Your task to perform on an android device: What's the weather going to be this weekend? Image 0: 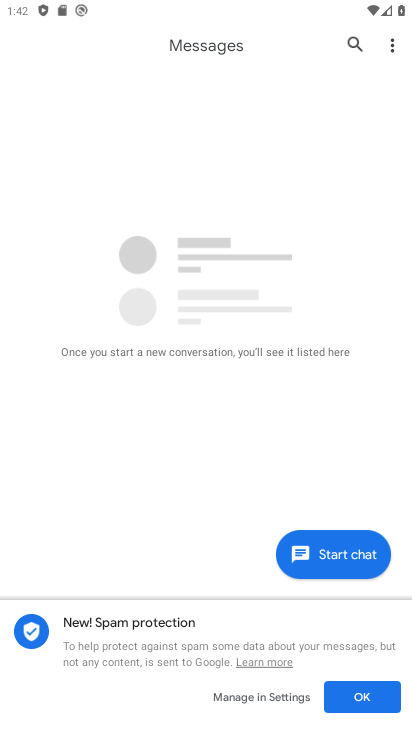
Step 0: press home button
Your task to perform on an android device: What's the weather going to be this weekend? Image 1: 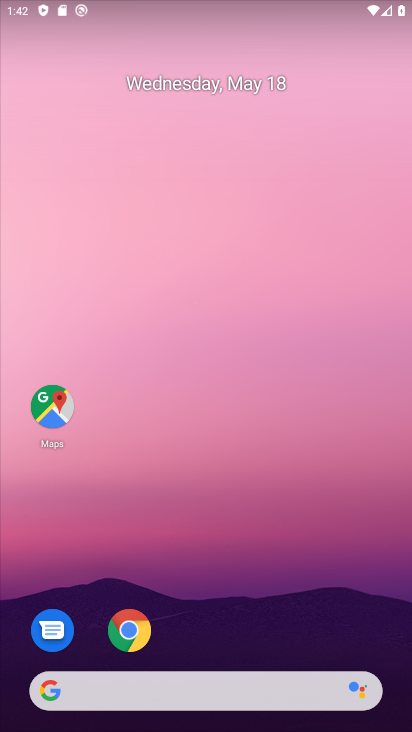
Step 1: click (148, 624)
Your task to perform on an android device: What's the weather going to be this weekend? Image 2: 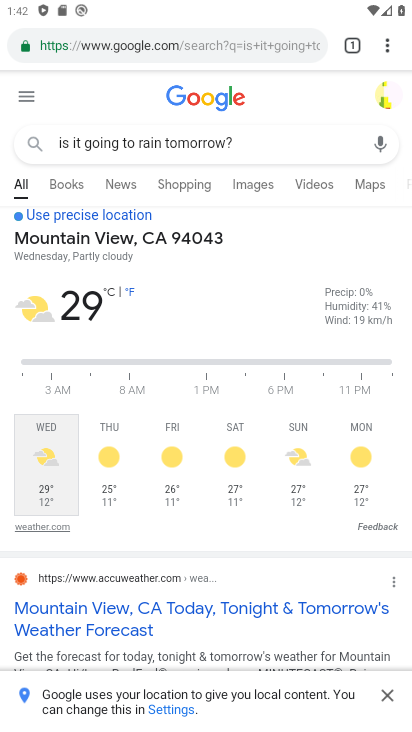
Step 2: click (284, 146)
Your task to perform on an android device: What's the weather going to be this weekend? Image 3: 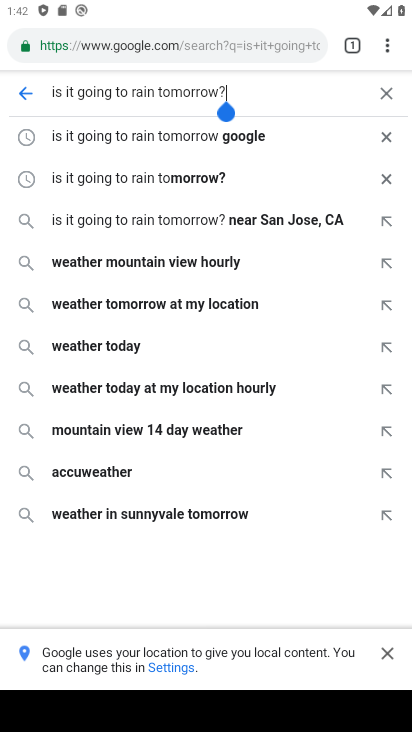
Step 3: click (383, 80)
Your task to perform on an android device: What's the weather going to be this weekend? Image 4: 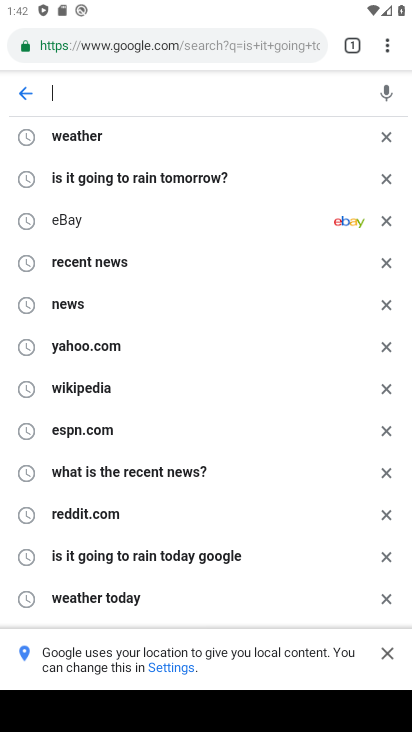
Step 4: click (184, 97)
Your task to perform on an android device: What's the weather going to be this weekend? Image 5: 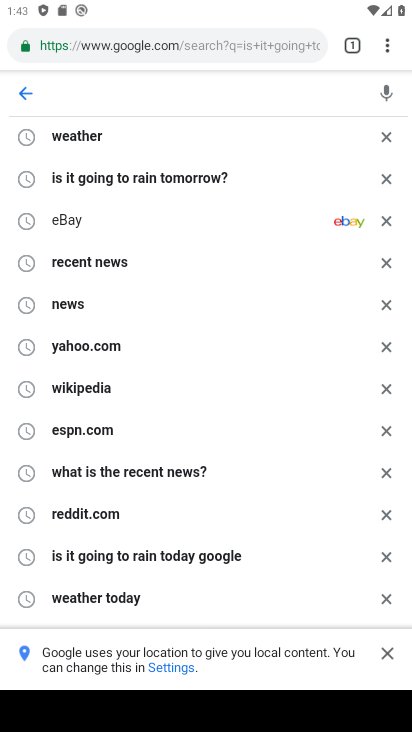
Step 5: type "what's the weather going to be this weekend?"
Your task to perform on an android device: What's the weather going to be this weekend? Image 6: 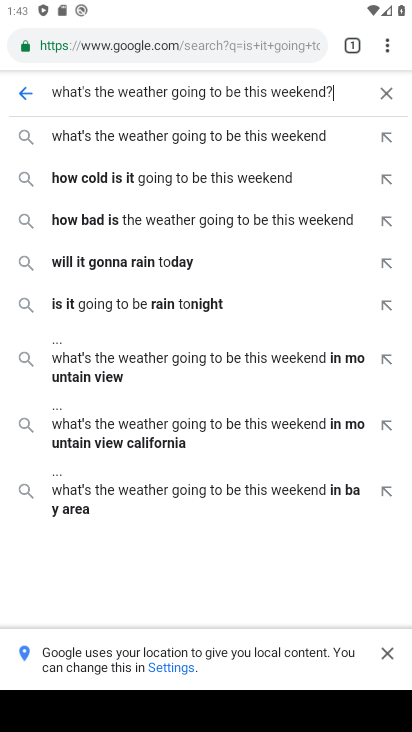
Step 6: click (278, 136)
Your task to perform on an android device: What's the weather going to be this weekend? Image 7: 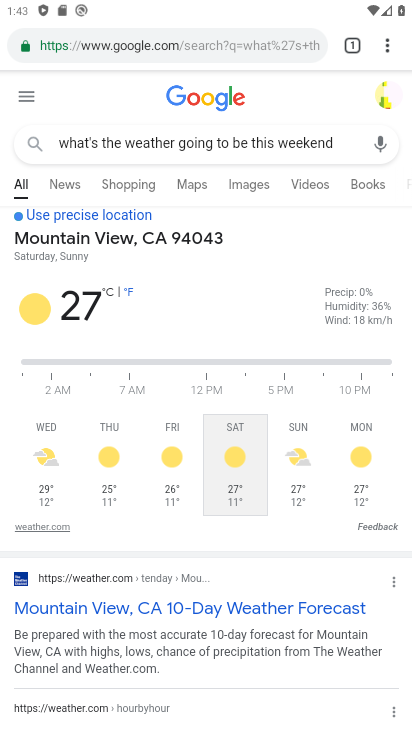
Step 7: click (303, 467)
Your task to perform on an android device: What's the weather going to be this weekend? Image 8: 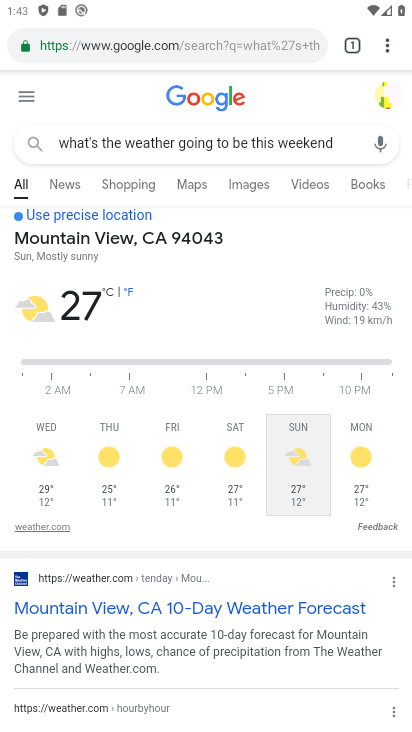
Step 8: task complete